Your task to perform on an android device: Toggle the flashlight Image 0: 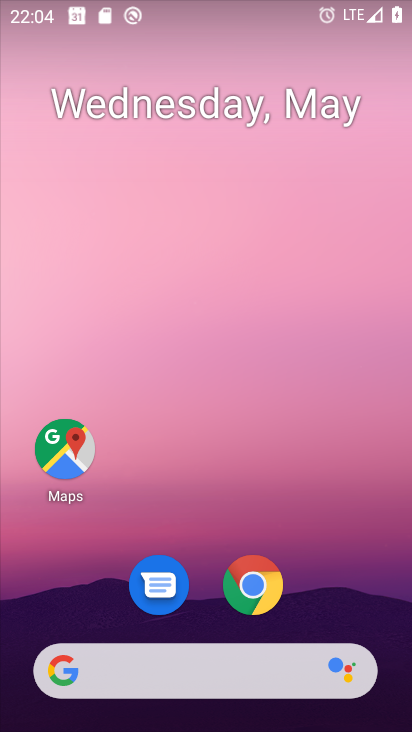
Step 0: drag from (199, 444) to (223, 63)
Your task to perform on an android device: Toggle the flashlight Image 1: 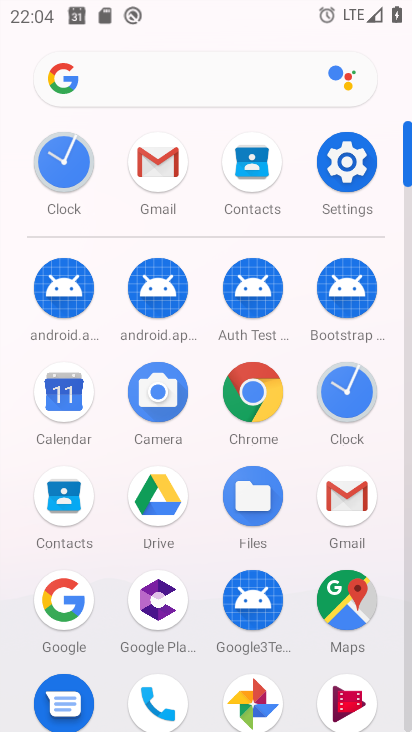
Step 1: click (344, 160)
Your task to perform on an android device: Toggle the flashlight Image 2: 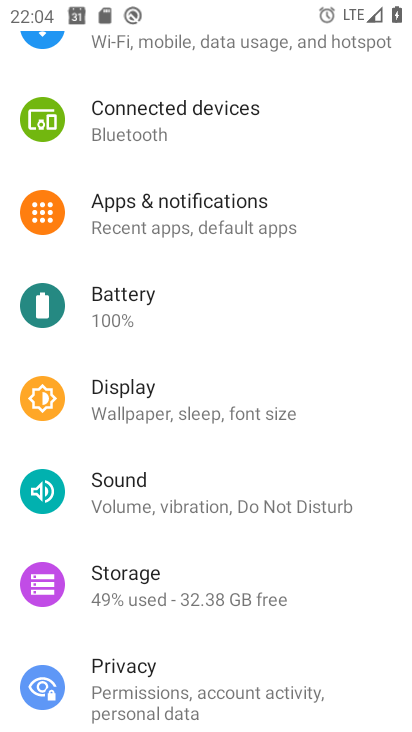
Step 2: drag from (230, 265) to (287, 639)
Your task to perform on an android device: Toggle the flashlight Image 3: 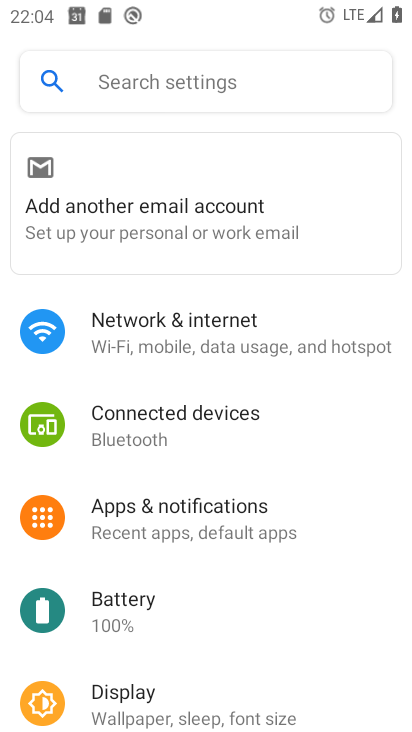
Step 3: click (199, 77)
Your task to perform on an android device: Toggle the flashlight Image 4: 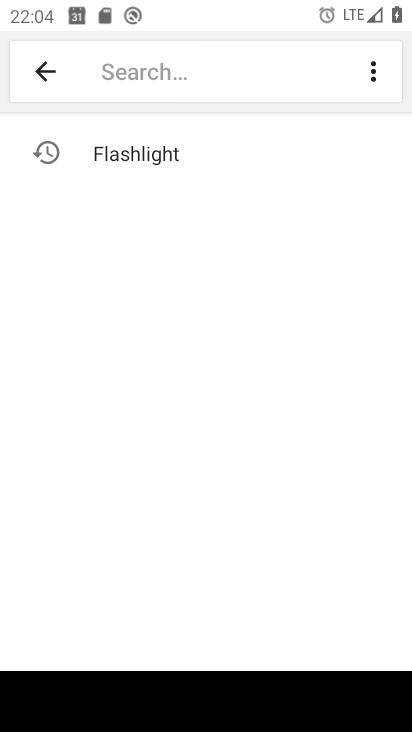
Step 4: click (133, 151)
Your task to perform on an android device: Toggle the flashlight Image 5: 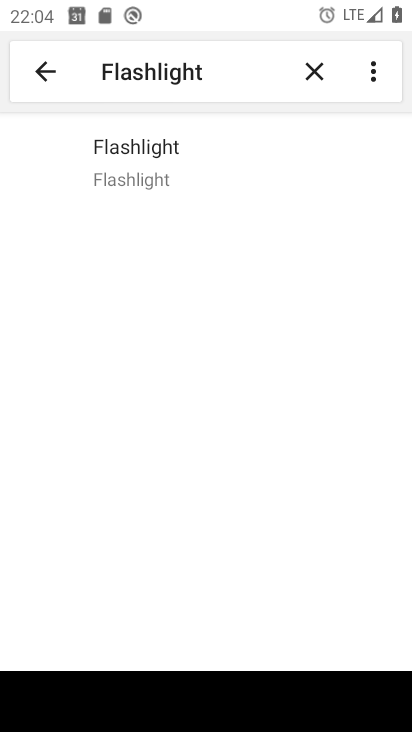
Step 5: click (133, 151)
Your task to perform on an android device: Toggle the flashlight Image 6: 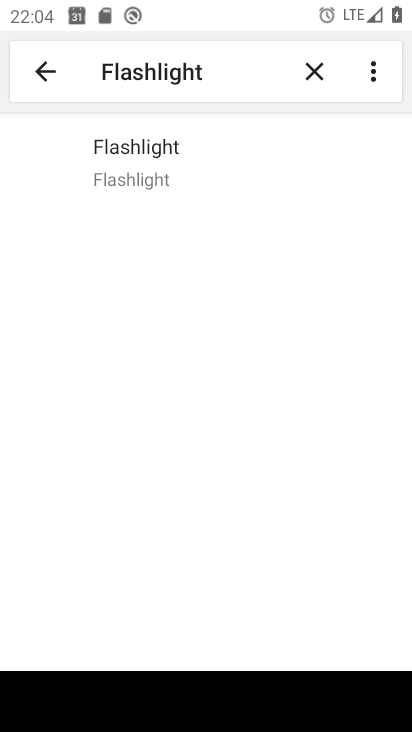
Step 6: click (133, 151)
Your task to perform on an android device: Toggle the flashlight Image 7: 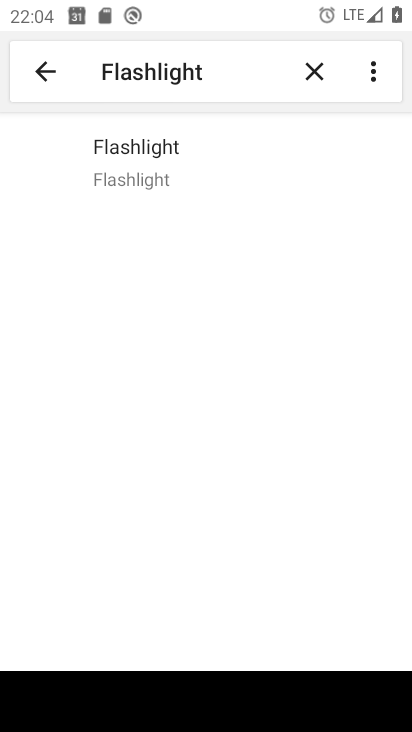
Step 7: task complete